Your task to perform on an android device: Go to accessibility settings Image 0: 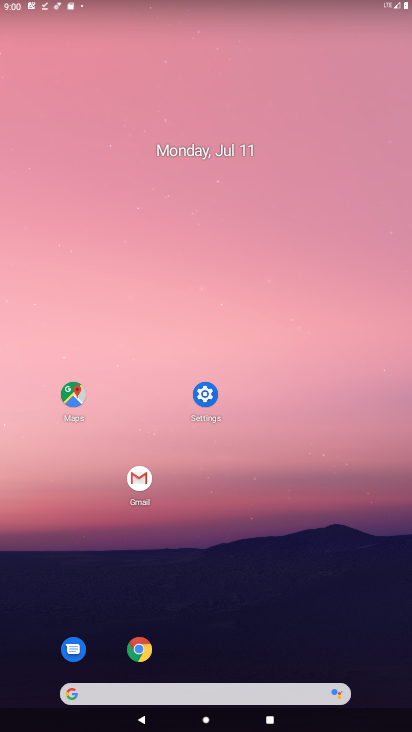
Step 0: click (204, 387)
Your task to perform on an android device: Go to accessibility settings Image 1: 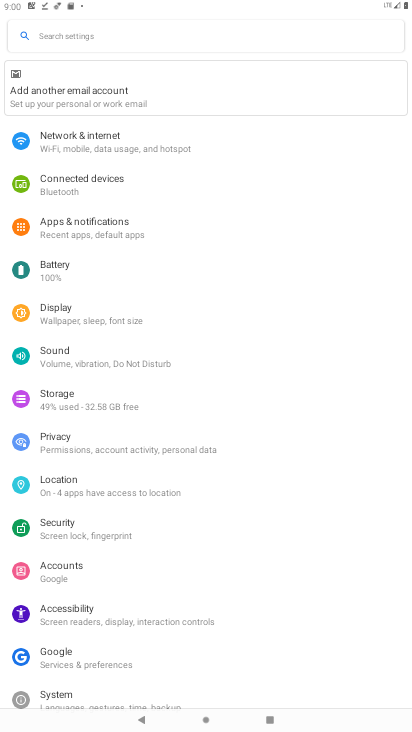
Step 1: click (71, 611)
Your task to perform on an android device: Go to accessibility settings Image 2: 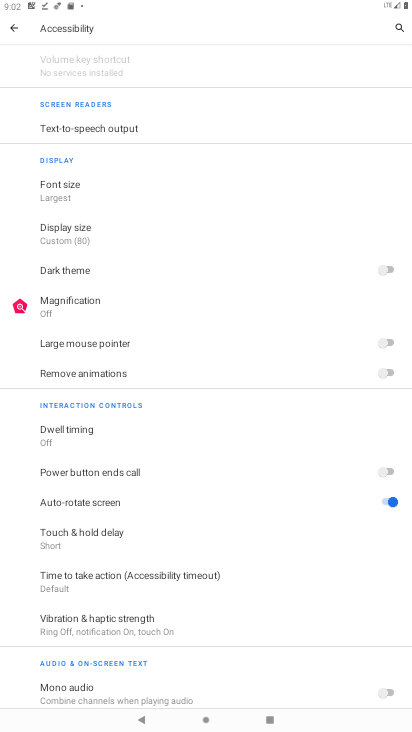
Step 2: task complete